Your task to perform on an android device: Do I have any events today? Image 0: 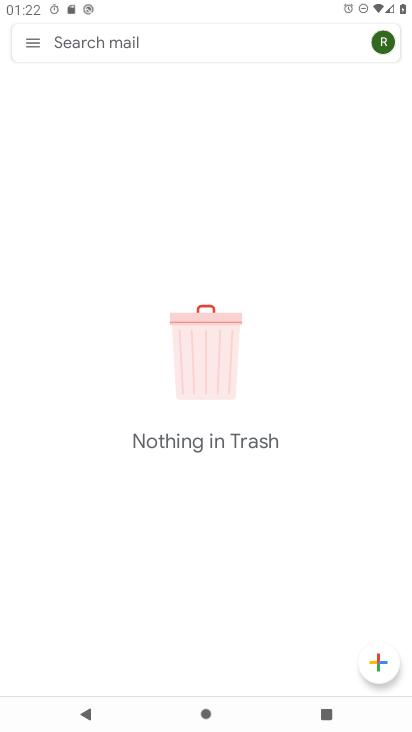
Step 0: press home button
Your task to perform on an android device: Do I have any events today? Image 1: 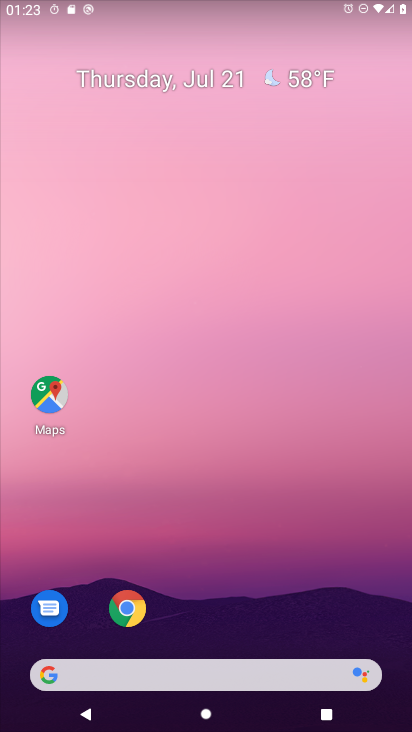
Step 1: drag from (219, 631) to (248, 15)
Your task to perform on an android device: Do I have any events today? Image 2: 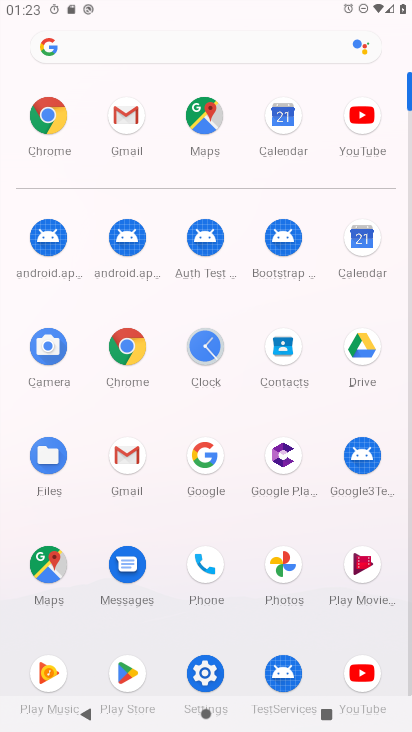
Step 2: click (351, 235)
Your task to perform on an android device: Do I have any events today? Image 3: 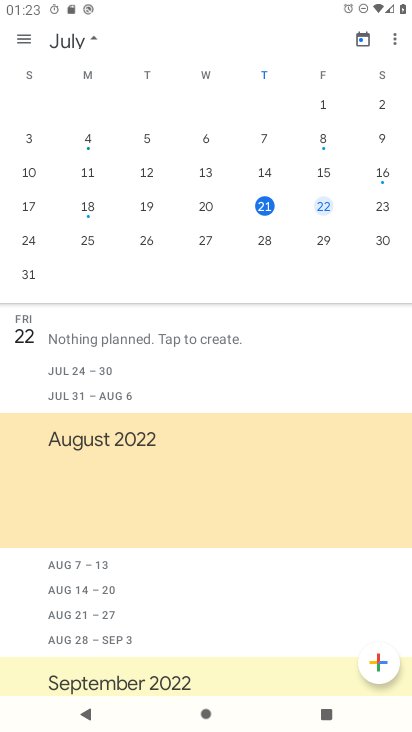
Step 3: click (265, 217)
Your task to perform on an android device: Do I have any events today? Image 4: 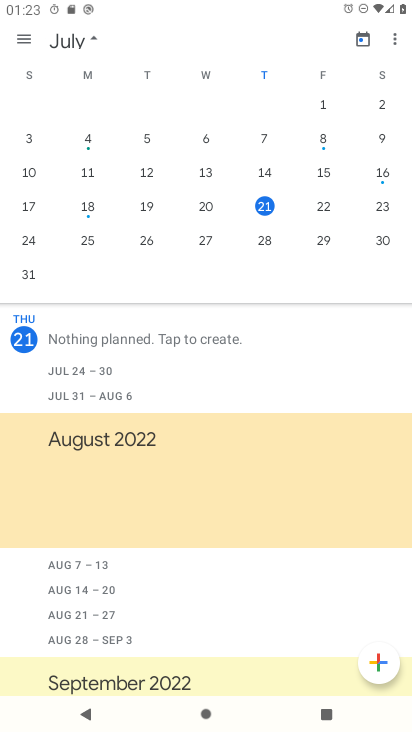
Step 4: task complete